Your task to perform on an android device: toggle translation in the chrome app Image 0: 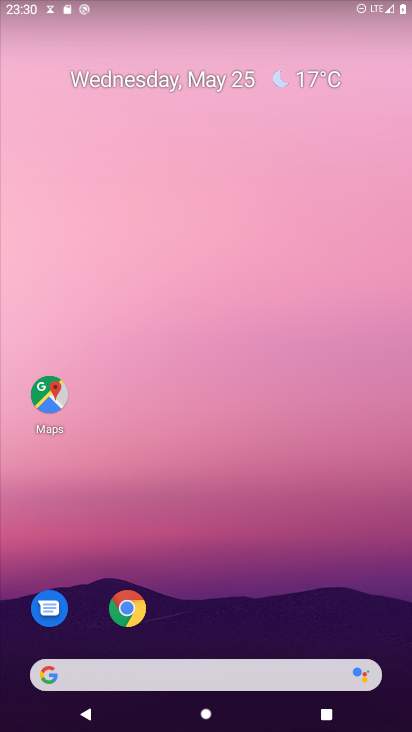
Step 0: click (141, 611)
Your task to perform on an android device: toggle translation in the chrome app Image 1: 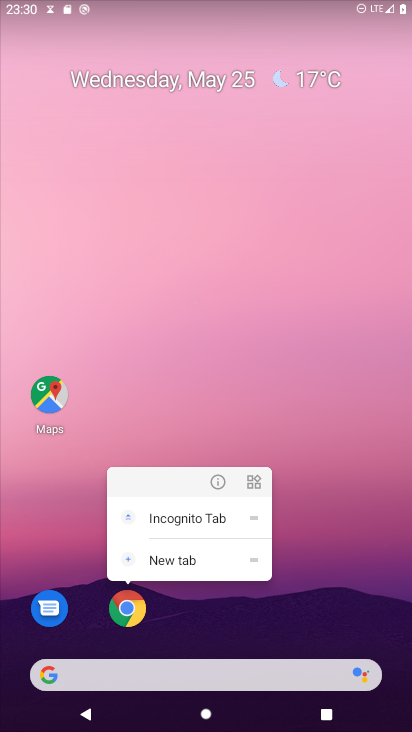
Step 1: click (110, 601)
Your task to perform on an android device: toggle translation in the chrome app Image 2: 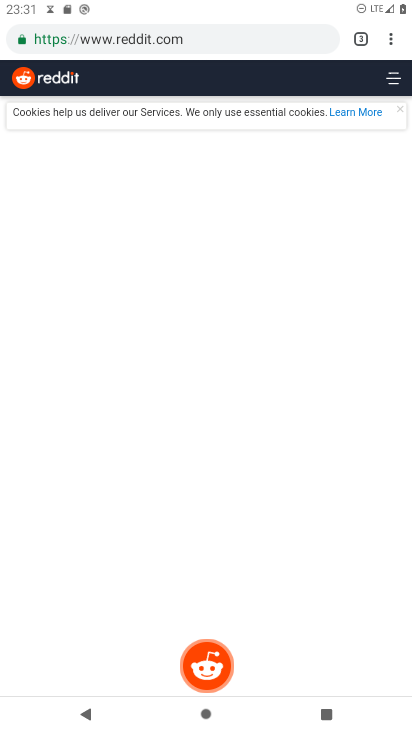
Step 2: click (386, 32)
Your task to perform on an android device: toggle translation in the chrome app Image 3: 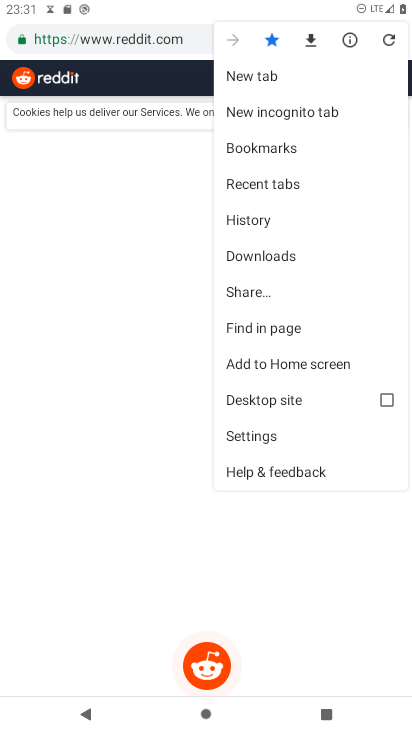
Step 3: click (266, 433)
Your task to perform on an android device: toggle translation in the chrome app Image 4: 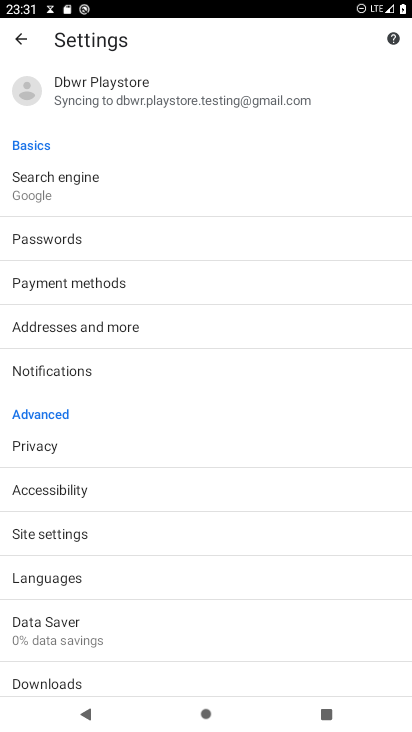
Step 4: click (89, 572)
Your task to perform on an android device: toggle translation in the chrome app Image 5: 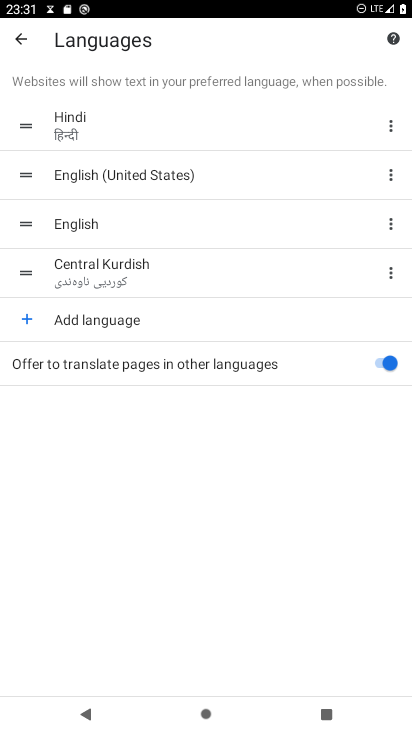
Step 5: click (384, 360)
Your task to perform on an android device: toggle translation in the chrome app Image 6: 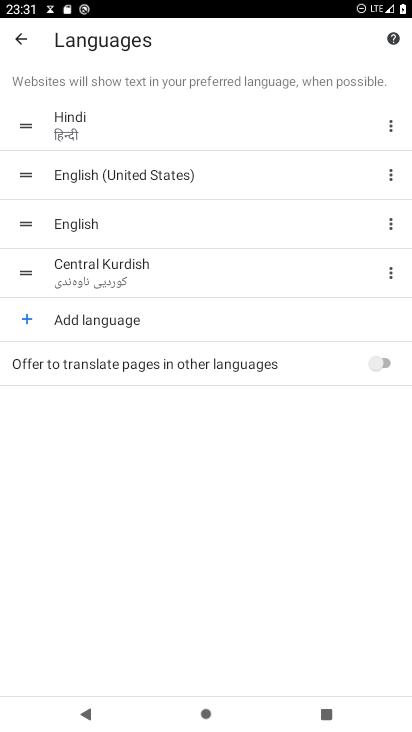
Step 6: task complete